Your task to perform on an android device: toggle airplane mode Image 0: 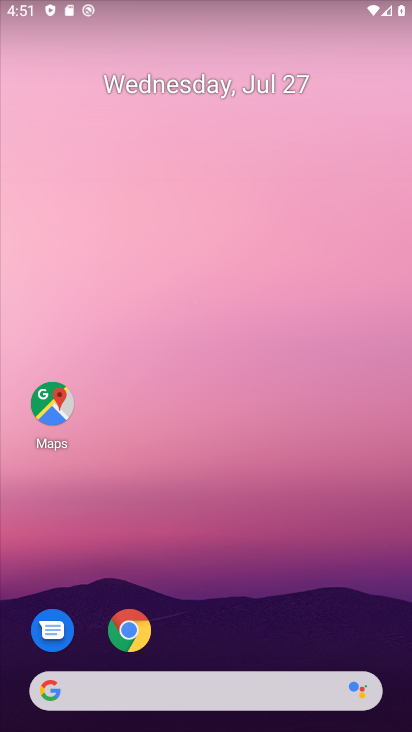
Step 0: drag from (286, 641) to (225, 127)
Your task to perform on an android device: toggle airplane mode Image 1: 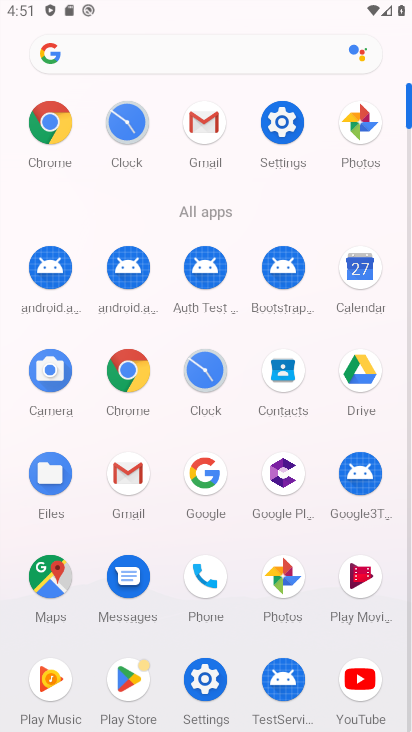
Step 1: click (280, 128)
Your task to perform on an android device: toggle airplane mode Image 2: 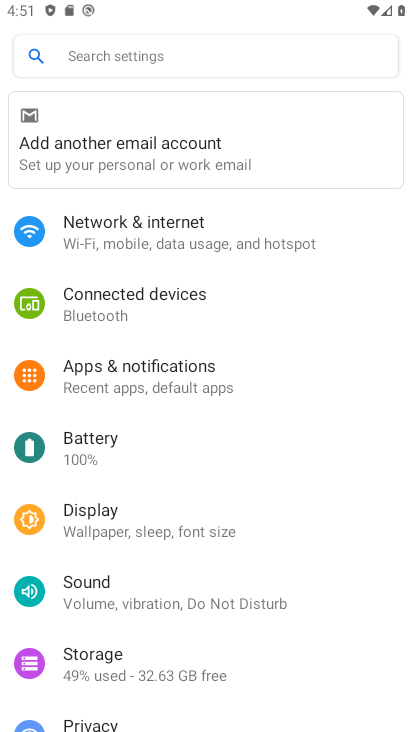
Step 2: click (213, 222)
Your task to perform on an android device: toggle airplane mode Image 3: 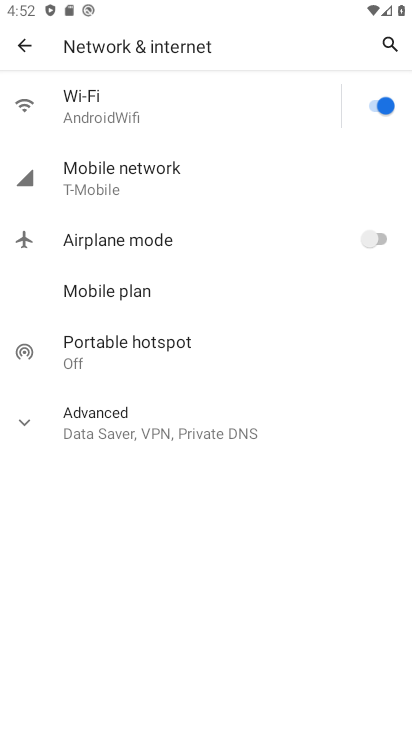
Step 3: click (370, 234)
Your task to perform on an android device: toggle airplane mode Image 4: 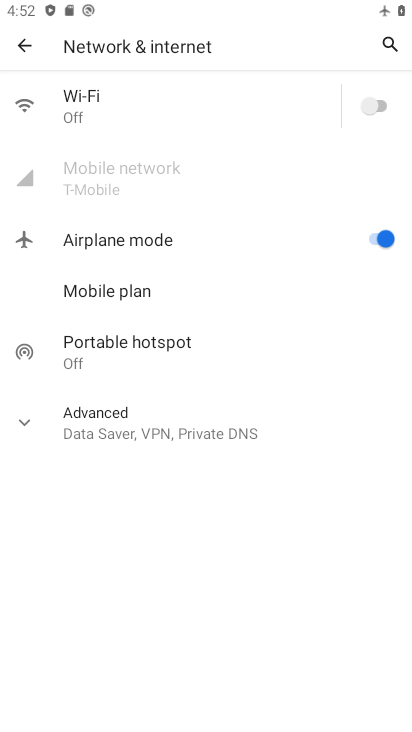
Step 4: task complete